Your task to perform on an android device: What is the news today? Image 0: 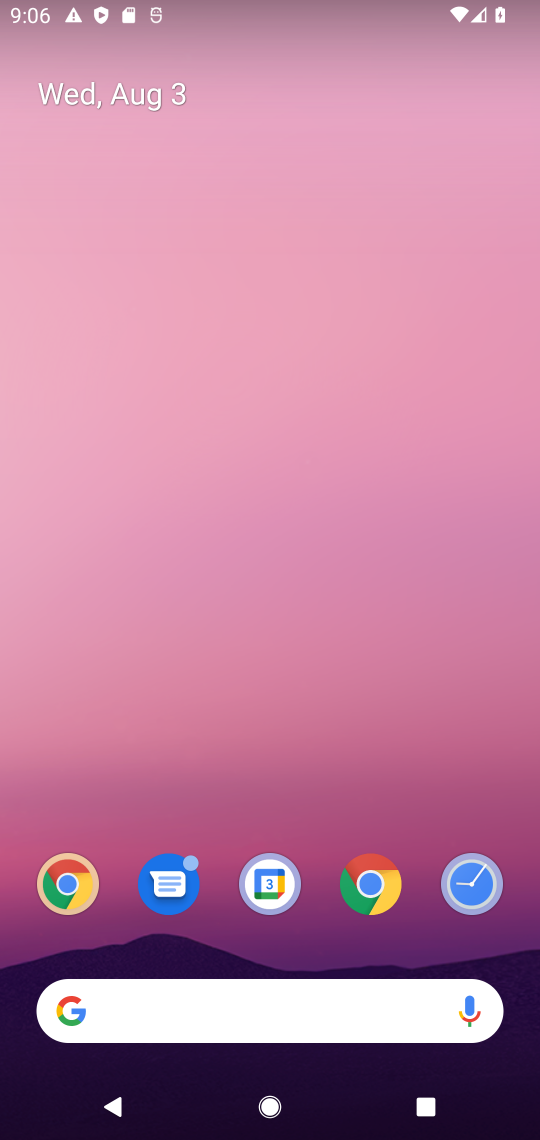
Step 0: press home button
Your task to perform on an android device: What is the news today? Image 1: 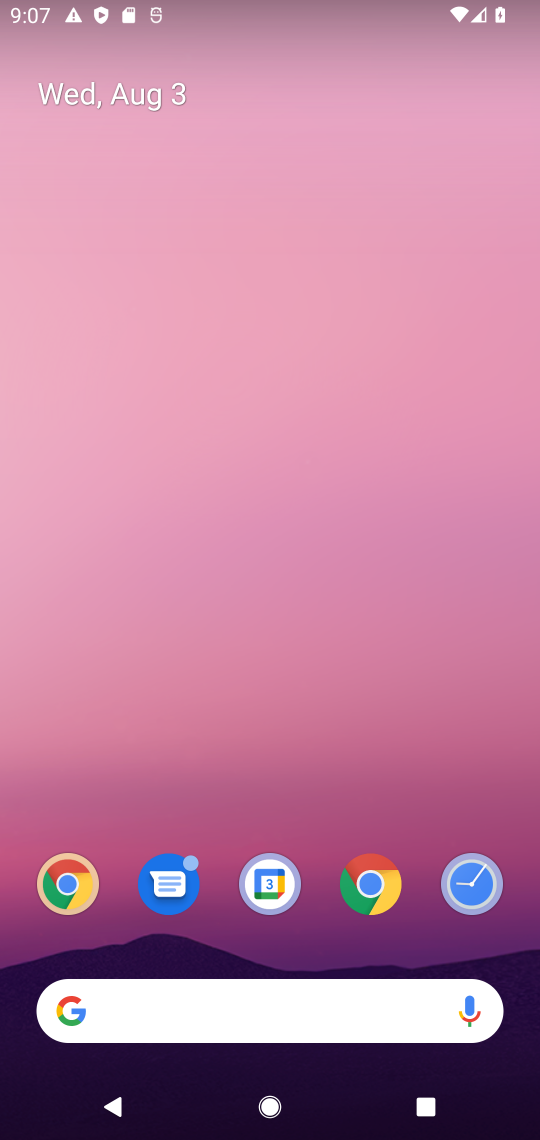
Step 1: click (52, 905)
Your task to perform on an android device: What is the news today? Image 2: 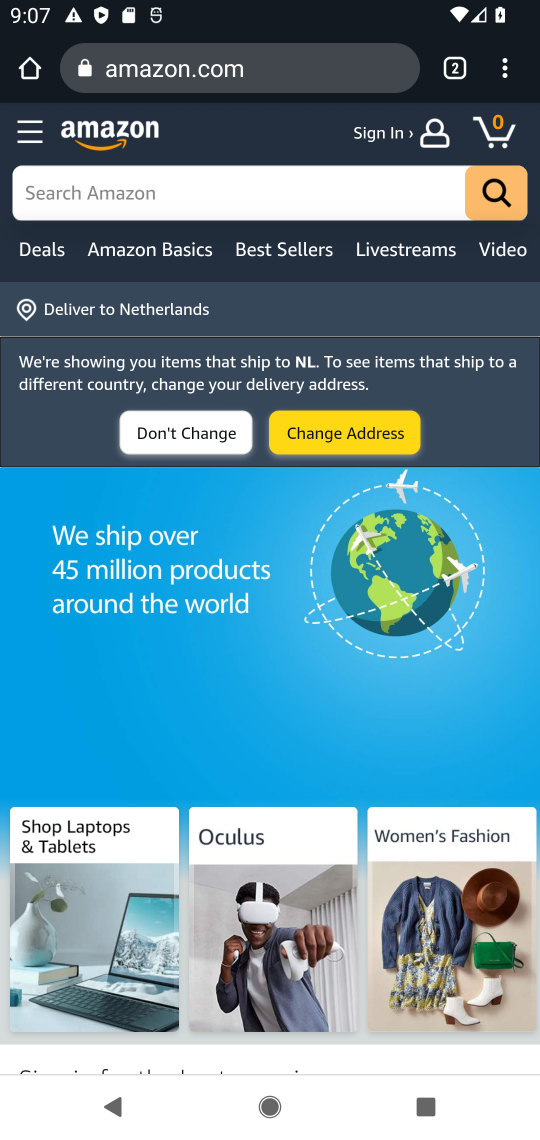
Step 2: click (311, 69)
Your task to perform on an android device: What is the news today? Image 3: 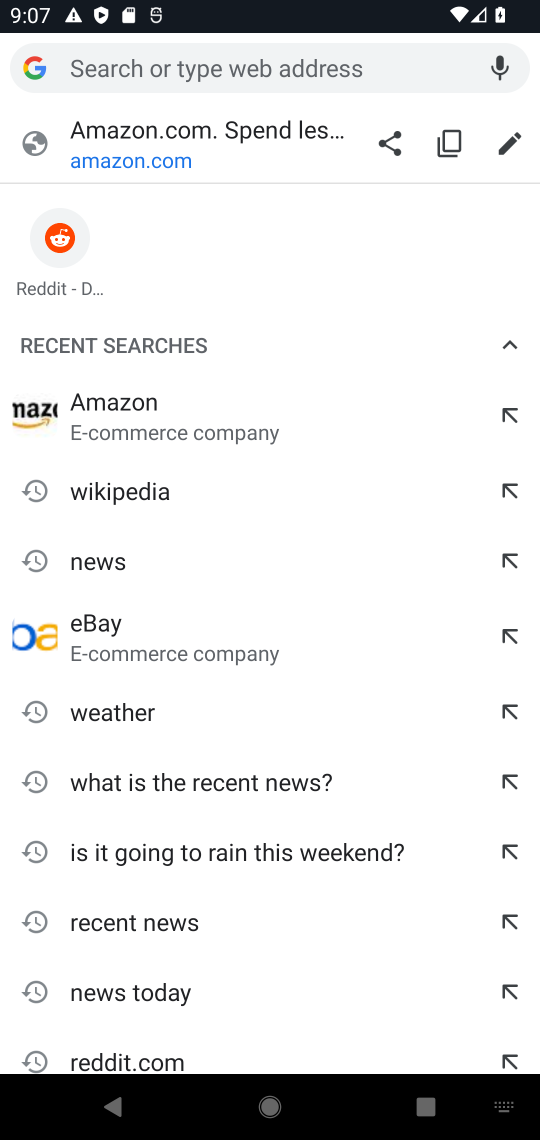
Step 3: type "What is the news today?"
Your task to perform on an android device: What is the news today? Image 4: 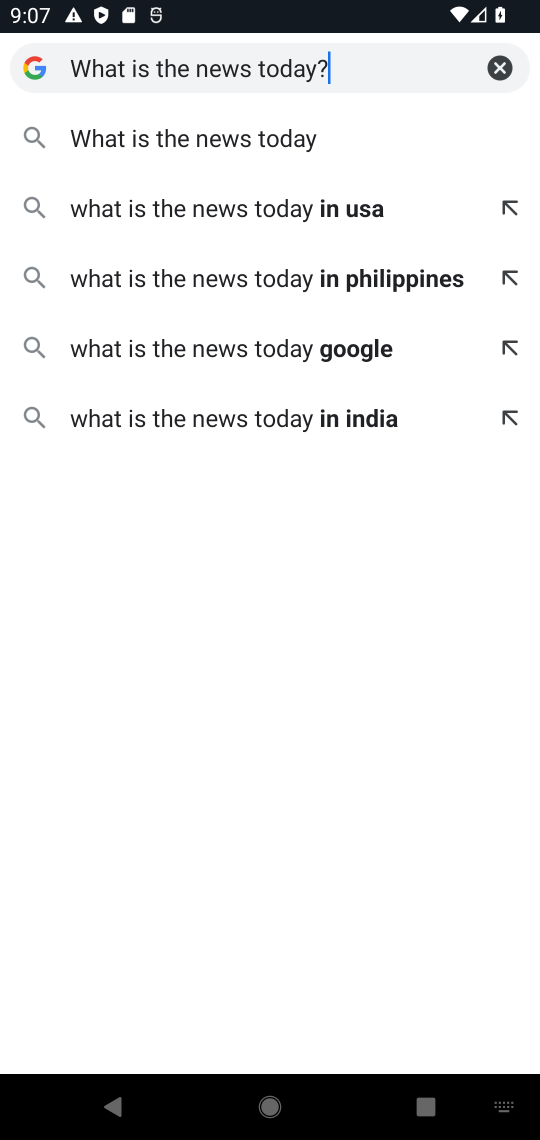
Step 4: type ""
Your task to perform on an android device: What is the news today? Image 5: 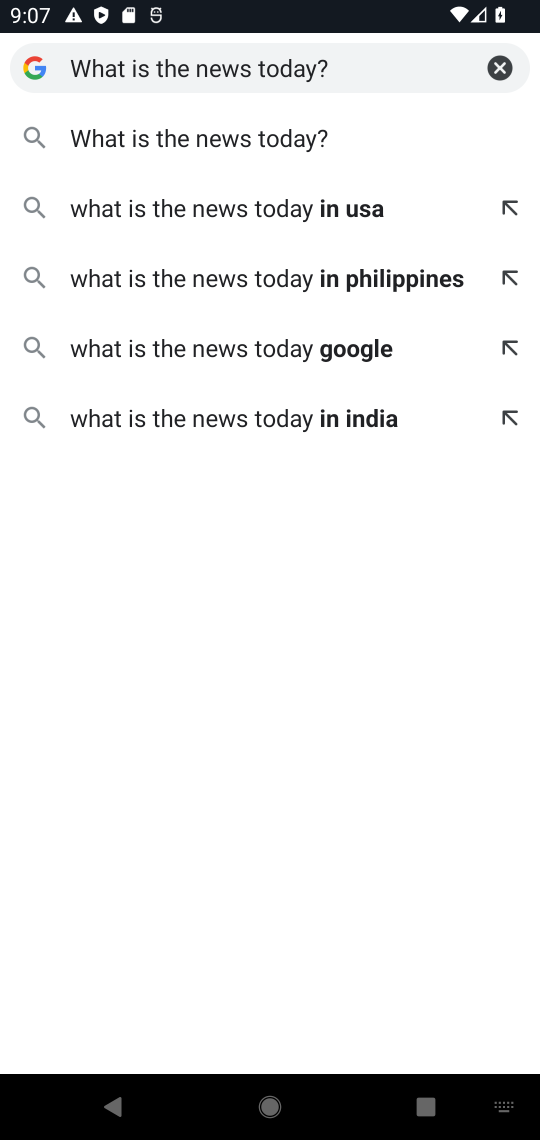
Step 5: click (106, 126)
Your task to perform on an android device: What is the news today? Image 6: 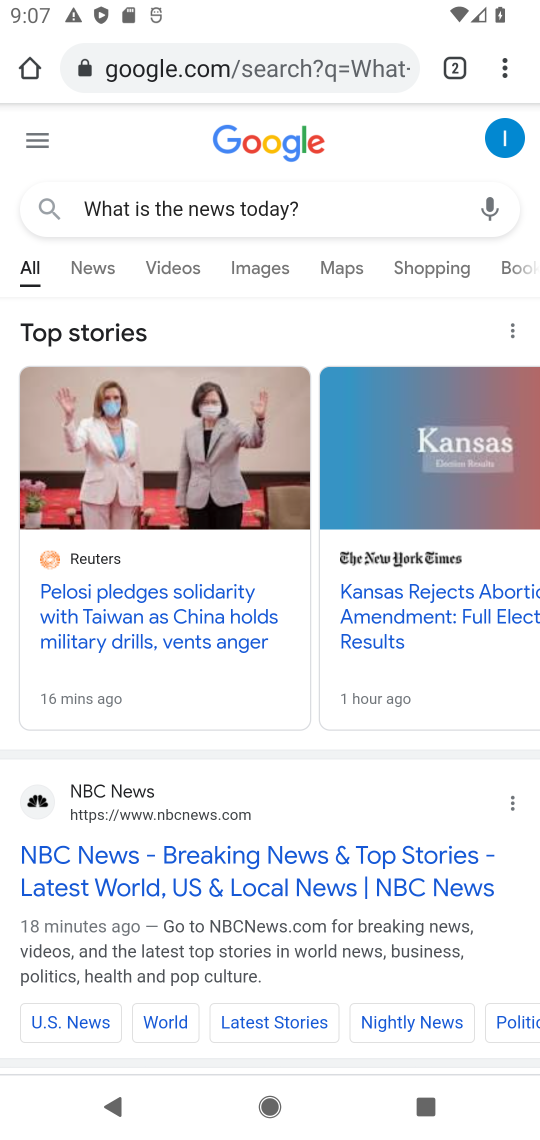
Step 6: task complete